Your task to perform on an android device: toggle wifi Image 0: 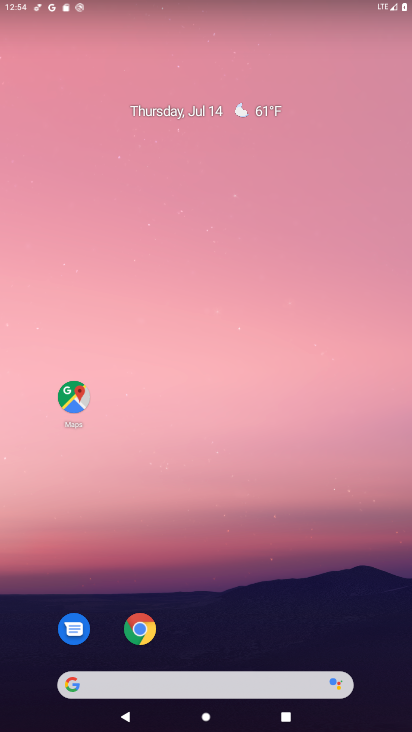
Step 0: drag from (360, 613) to (333, 110)
Your task to perform on an android device: toggle wifi Image 1: 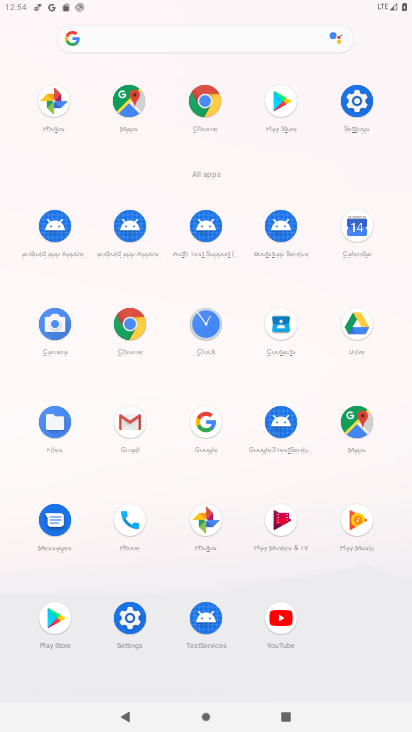
Step 1: click (368, 86)
Your task to perform on an android device: toggle wifi Image 2: 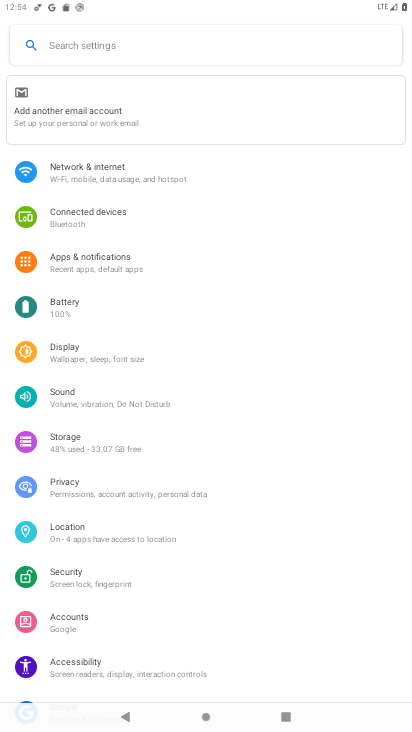
Step 2: click (64, 180)
Your task to perform on an android device: toggle wifi Image 3: 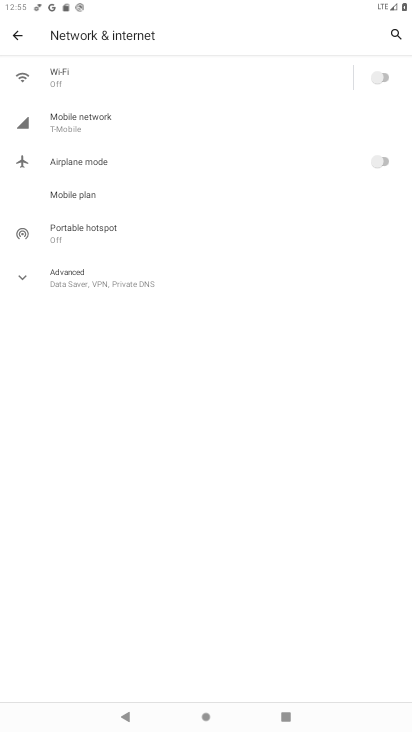
Step 3: click (388, 74)
Your task to perform on an android device: toggle wifi Image 4: 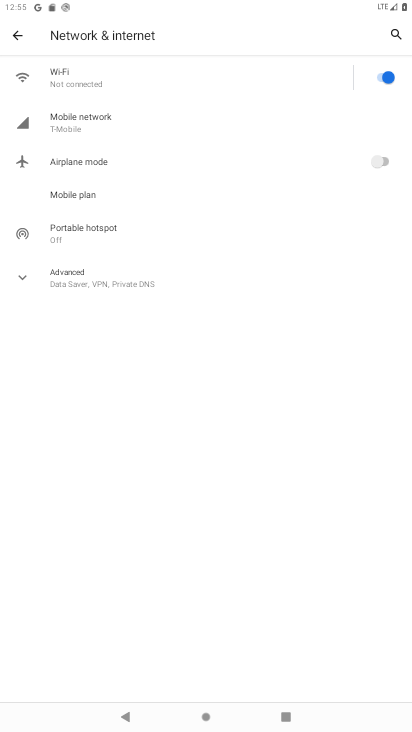
Step 4: task complete